Your task to perform on an android device: choose inbox layout in the gmail app Image 0: 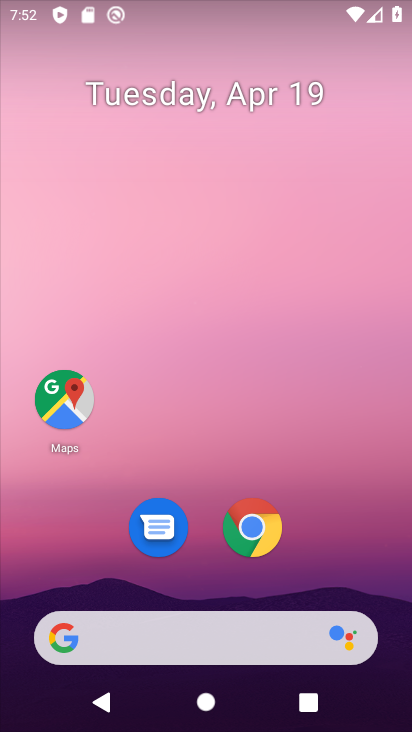
Step 0: drag from (195, 585) to (199, 158)
Your task to perform on an android device: choose inbox layout in the gmail app Image 1: 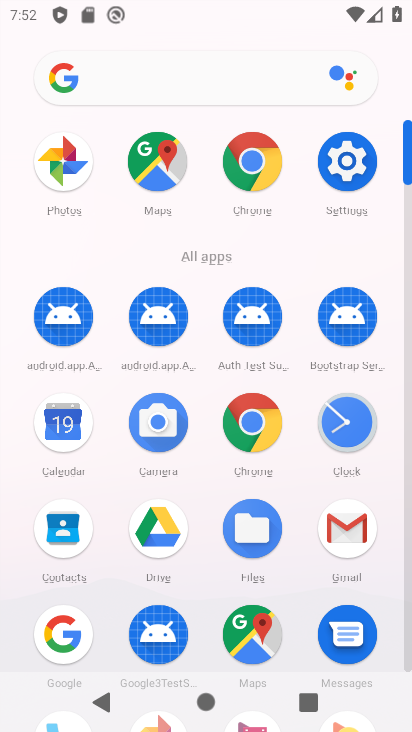
Step 1: click (337, 503)
Your task to perform on an android device: choose inbox layout in the gmail app Image 2: 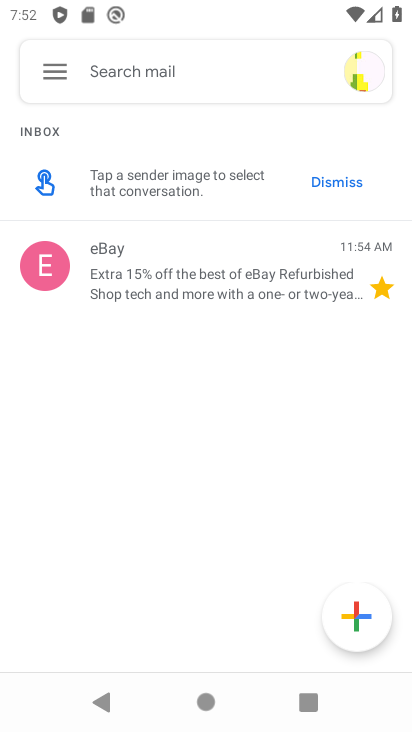
Step 2: click (51, 78)
Your task to perform on an android device: choose inbox layout in the gmail app Image 3: 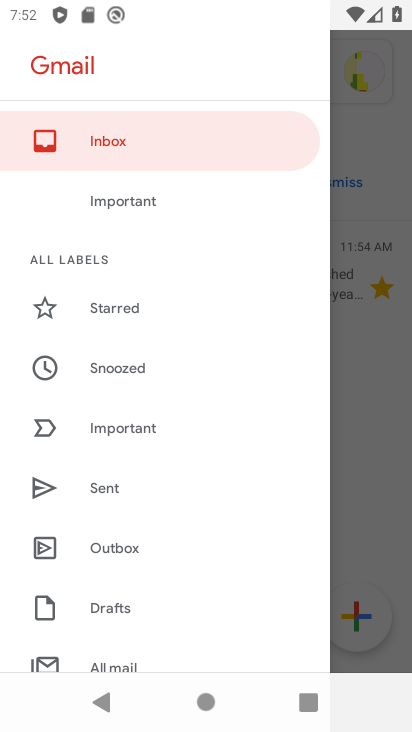
Step 3: drag from (163, 604) to (178, 301)
Your task to perform on an android device: choose inbox layout in the gmail app Image 4: 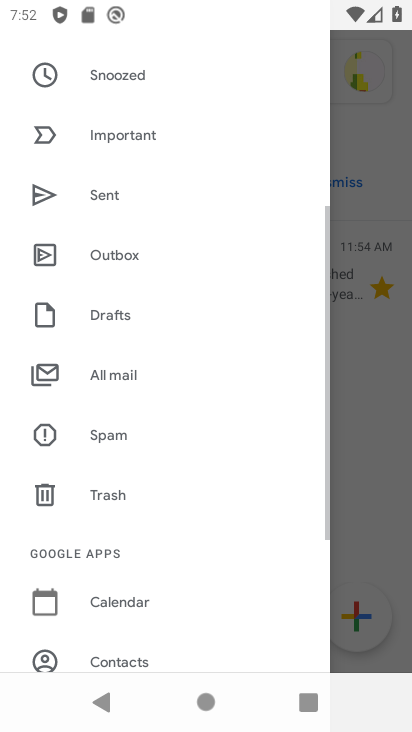
Step 4: drag from (145, 503) to (161, 310)
Your task to perform on an android device: choose inbox layout in the gmail app Image 5: 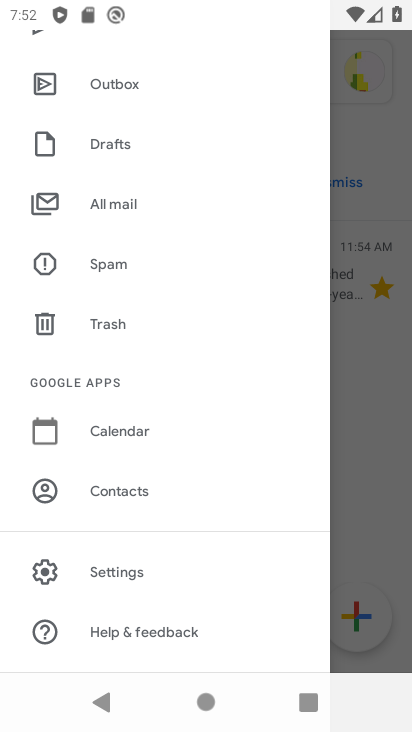
Step 5: click (120, 565)
Your task to perform on an android device: choose inbox layout in the gmail app Image 6: 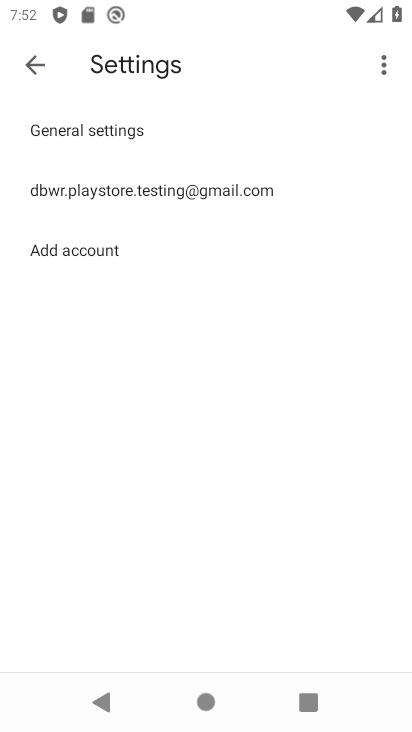
Step 6: click (147, 197)
Your task to perform on an android device: choose inbox layout in the gmail app Image 7: 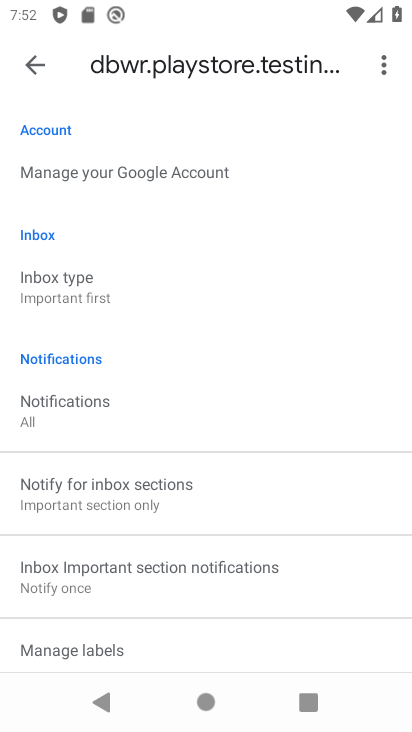
Step 7: click (132, 289)
Your task to perform on an android device: choose inbox layout in the gmail app Image 8: 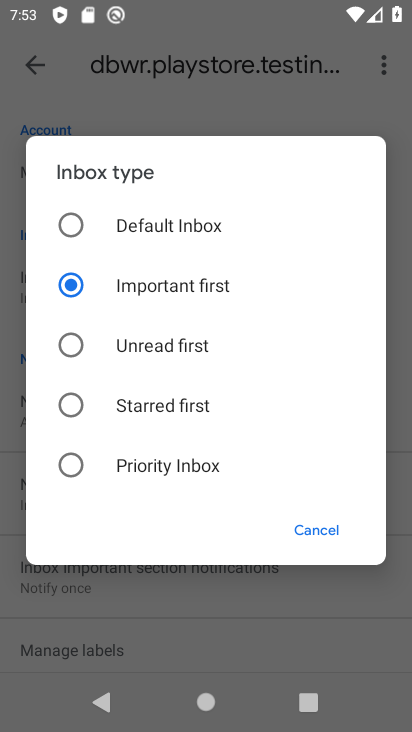
Step 8: click (166, 466)
Your task to perform on an android device: choose inbox layout in the gmail app Image 9: 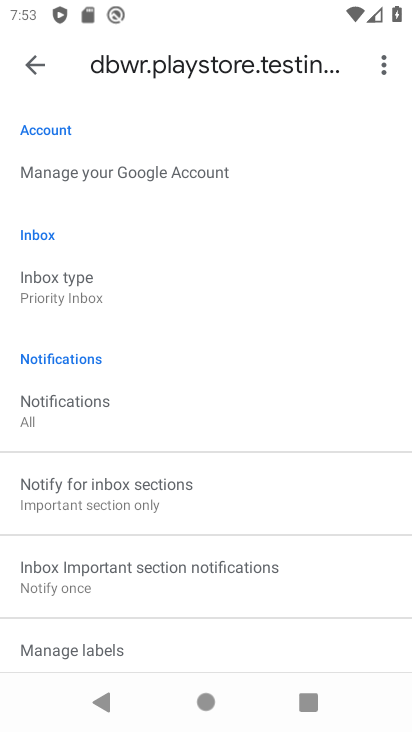
Step 9: task complete